Your task to perform on an android device: Search for a new blush on Sephora Image 0: 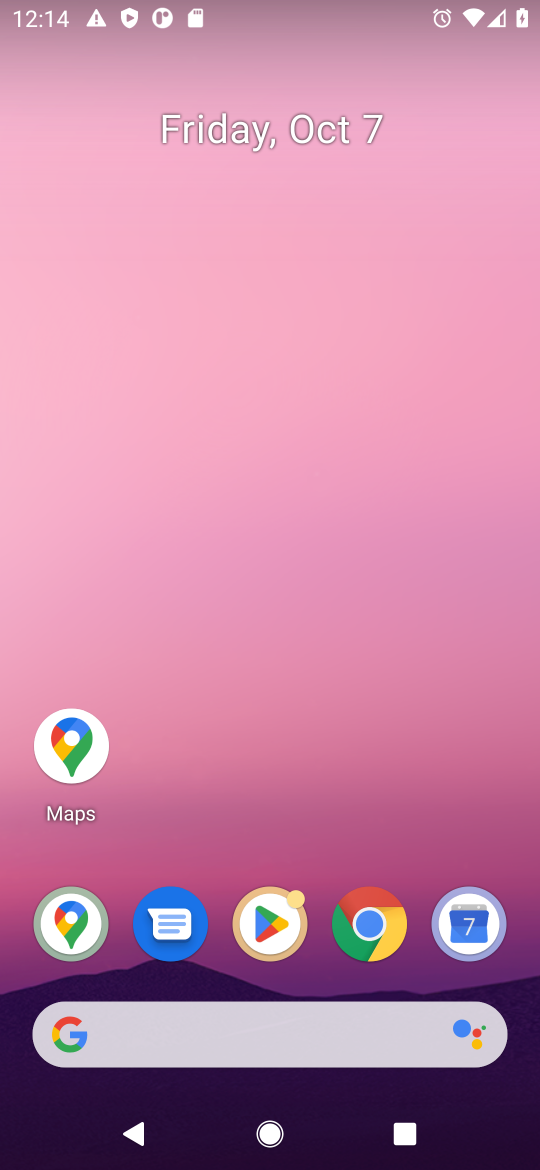
Step 0: click (373, 924)
Your task to perform on an android device: Search for a new blush on Sephora Image 1: 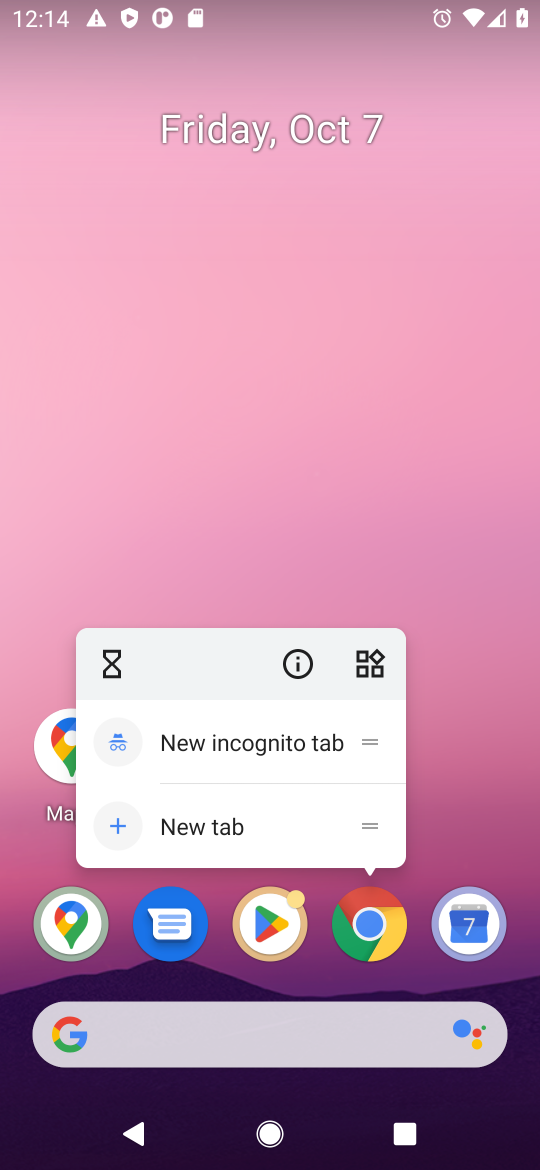
Step 1: click (363, 934)
Your task to perform on an android device: Search for a new blush on Sephora Image 2: 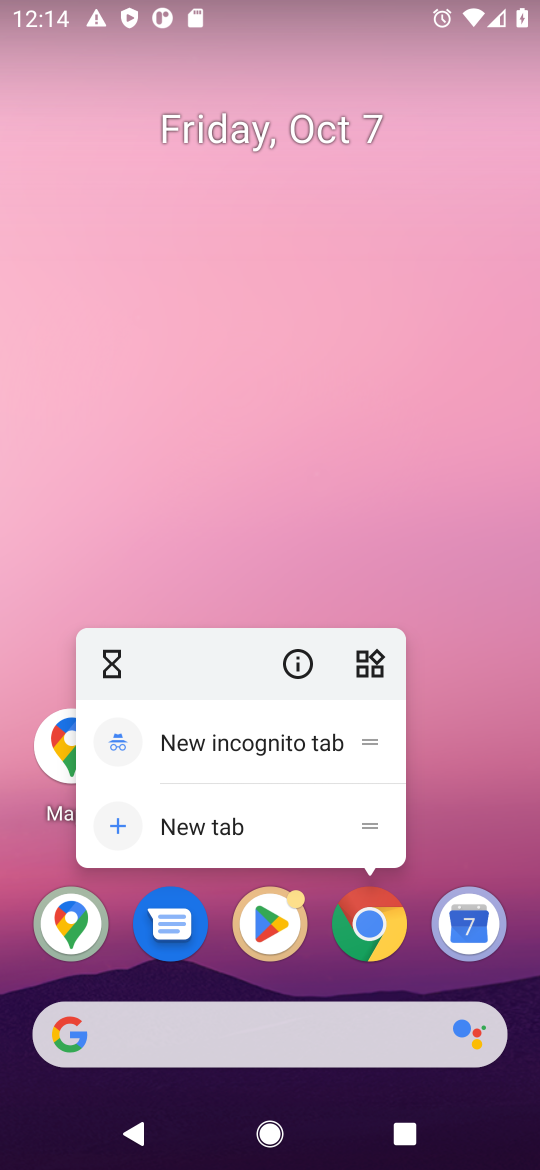
Step 2: click (363, 937)
Your task to perform on an android device: Search for a new blush on Sephora Image 3: 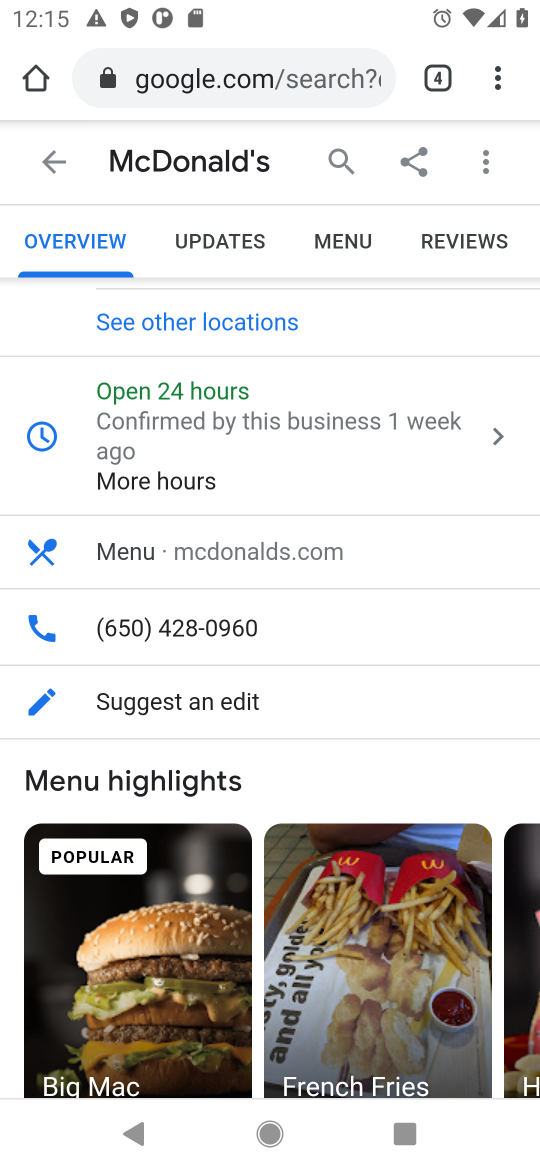
Step 3: click (298, 70)
Your task to perform on an android device: Search for a new blush on Sephora Image 4: 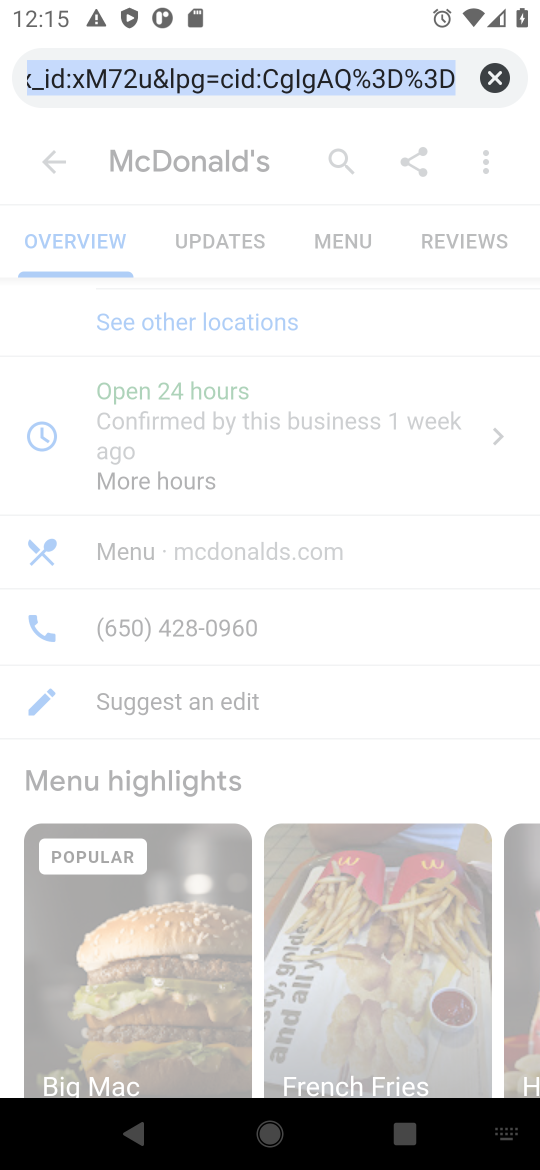
Step 4: click (491, 84)
Your task to perform on an android device: Search for a new blush on Sephora Image 5: 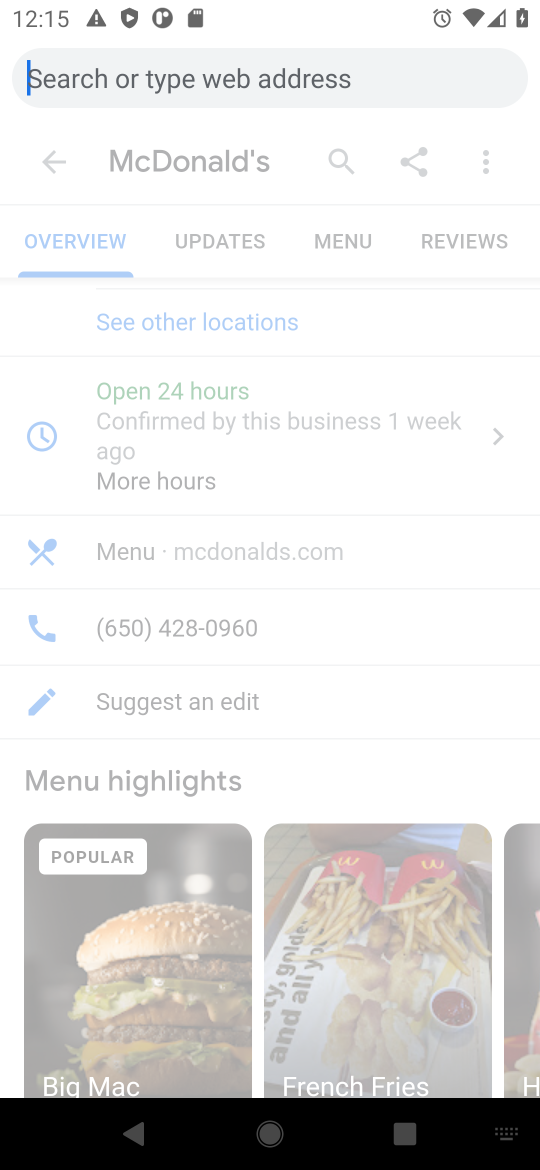
Step 5: type "new blush on Sephora"
Your task to perform on an android device: Search for a new blush on Sephora Image 6: 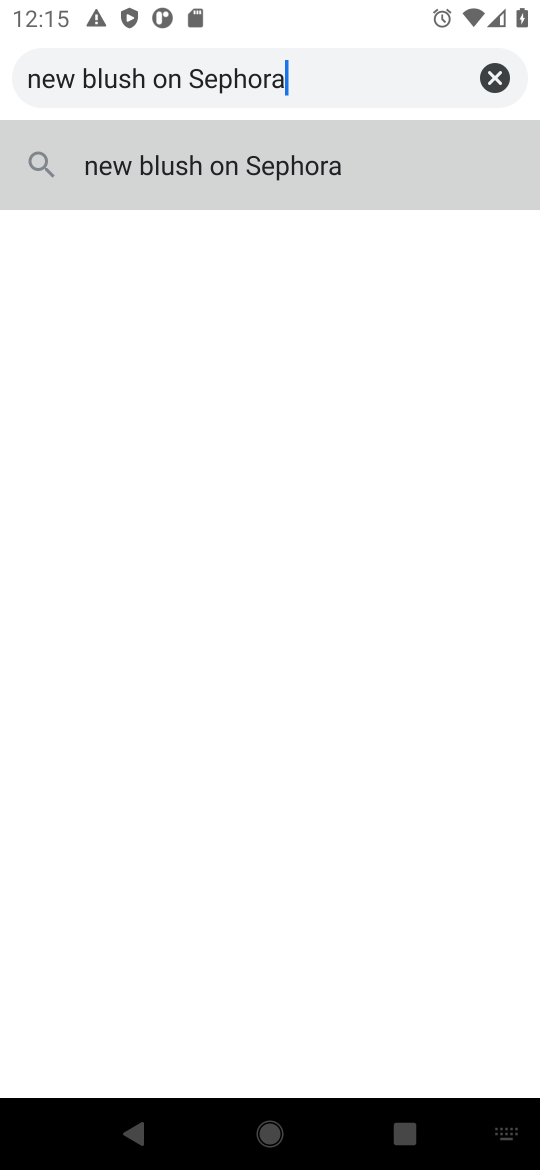
Step 6: click (187, 172)
Your task to perform on an android device: Search for a new blush on Sephora Image 7: 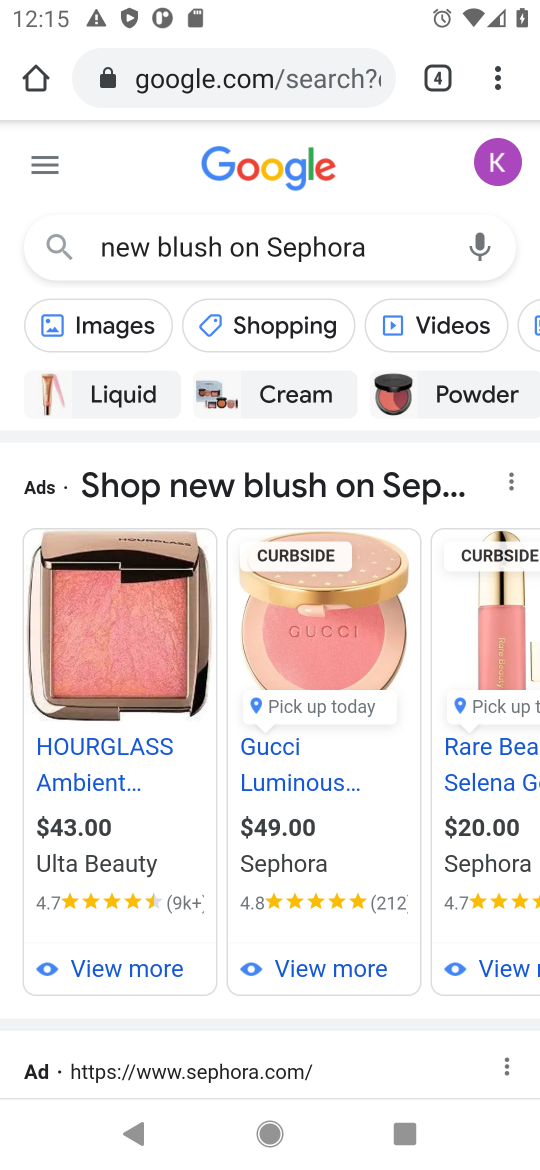
Step 7: drag from (230, 846) to (455, 407)
Your task to perform on an android device: Search for a new blush on Sephora Image 8: 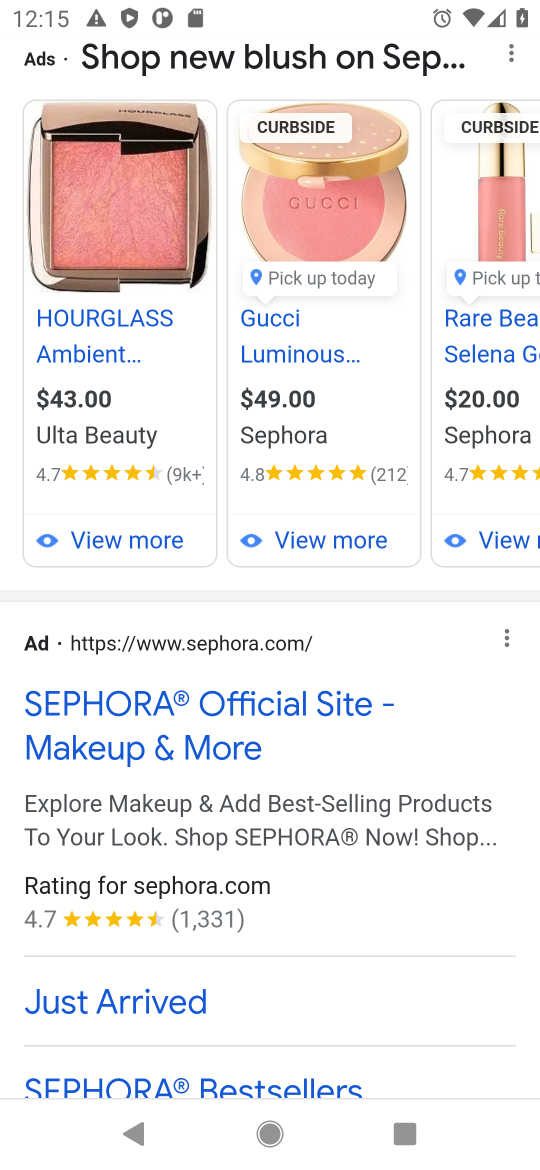
Step 8: click (181, 704)
Your task to perform on an android device: Search for a new blush on Sephora Image 9: 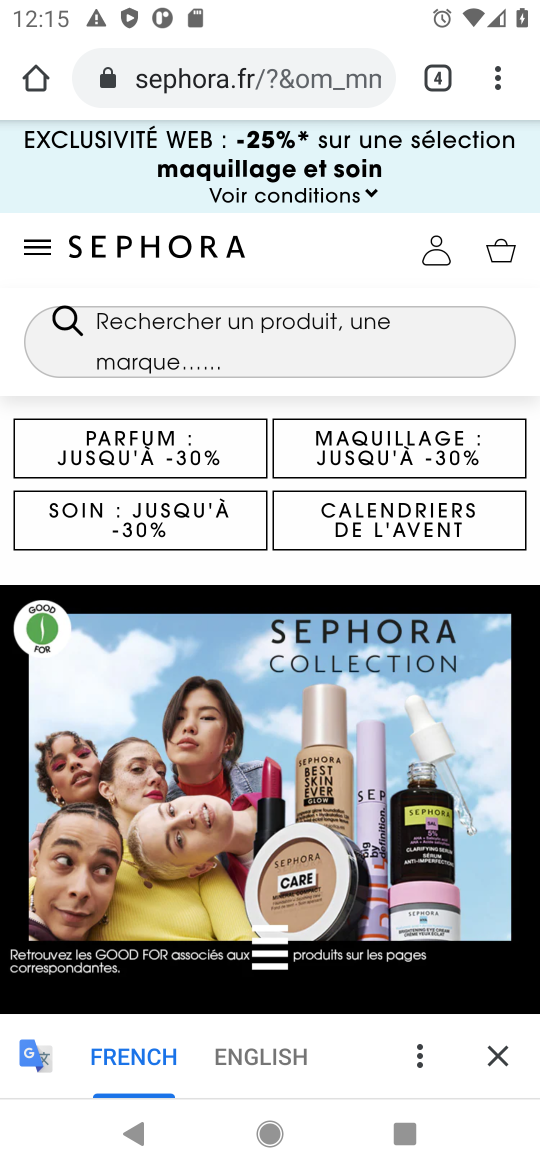
Step 9: drag from (115, 970) to (506, 371)
Your task to perform on an android device: Search for a new blush on Sephora Image 10: 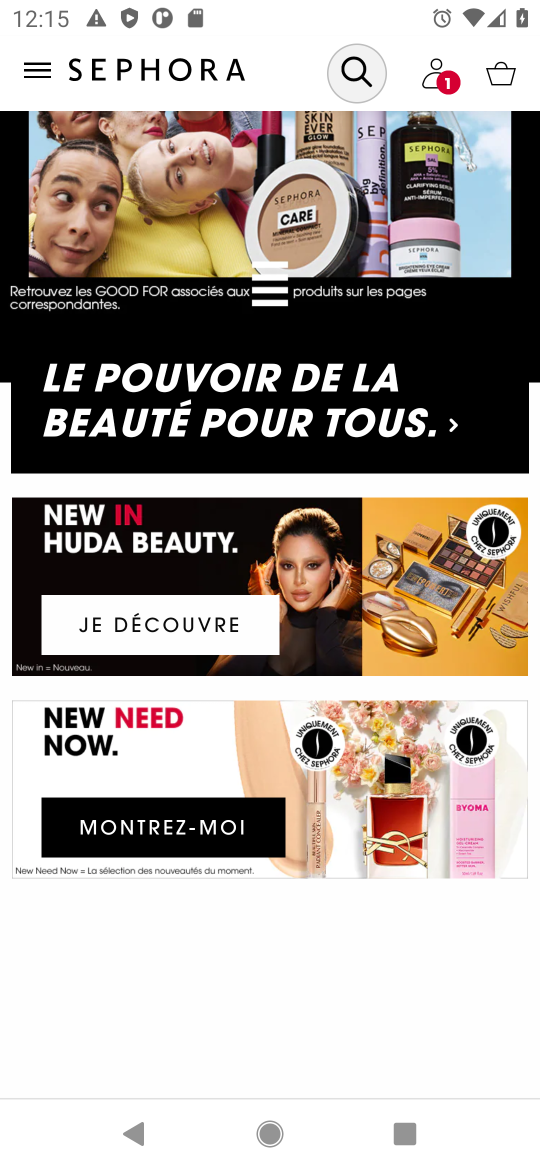
Step 10: drag from (149, 912) to (415, 316)
Your task to perform on an android device: Search for a new blush on Sephora Image 11: 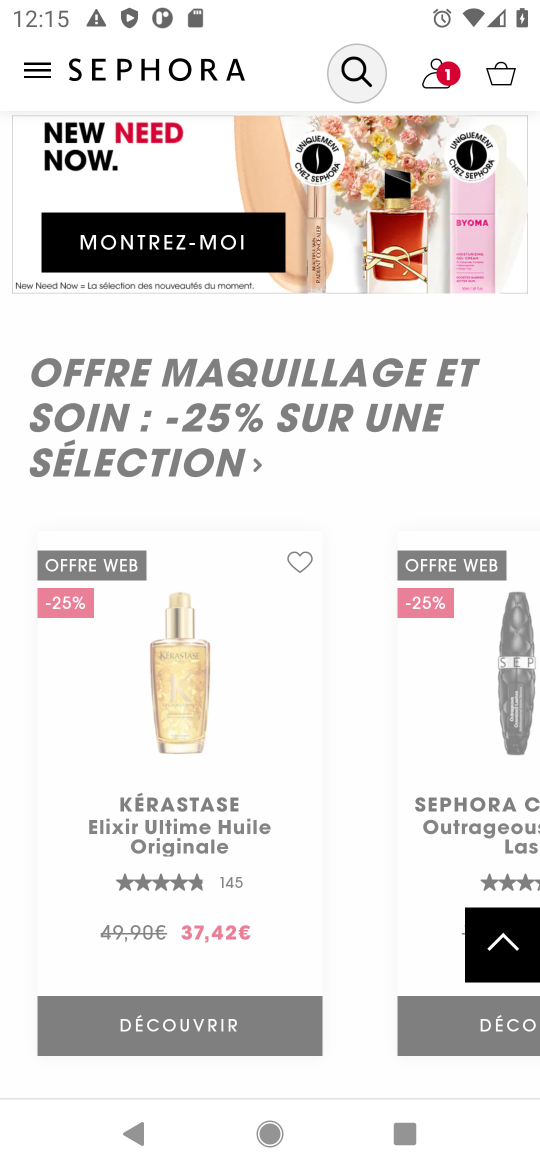
Step 11: drag from (236, 833) to (243, 988)
Your task to perform on an android device: Search for a new blush on Sephora Image 12: 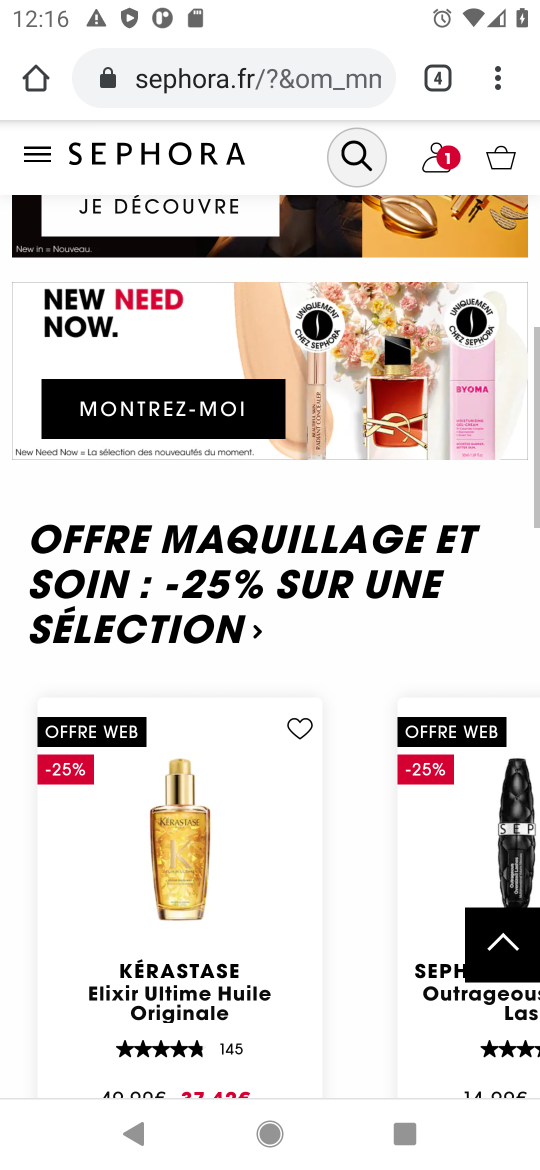
Step 12: drag from (377, 468) to (350, 704)
Your task to perform on an android device: Search for a new blush on Sephora Image 13: 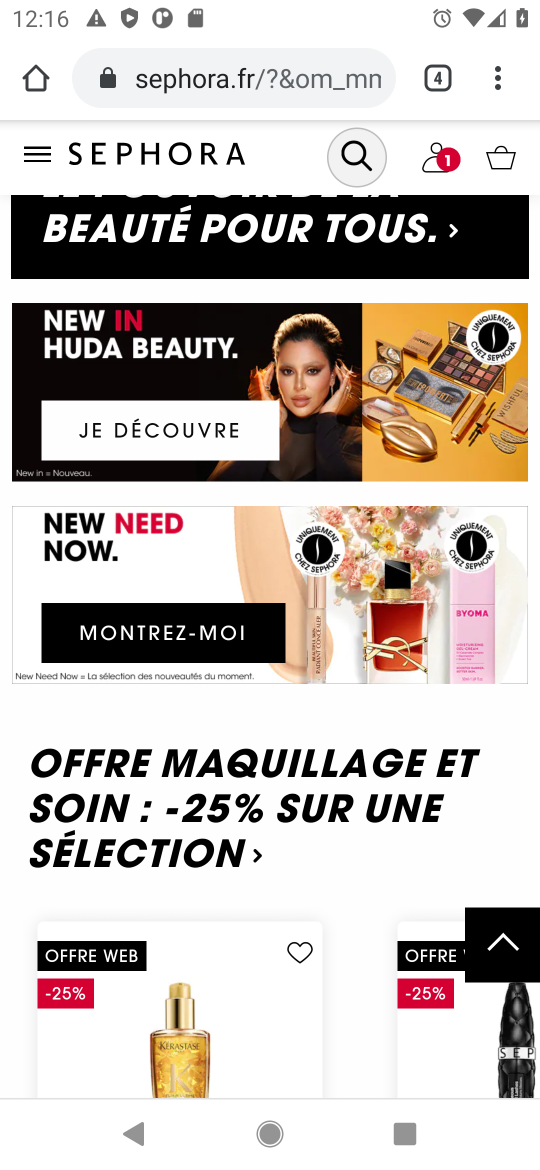
Step 13: click (353, 156)
Your task to perform on an android device: Search for a new blush on Sephora Image 14: 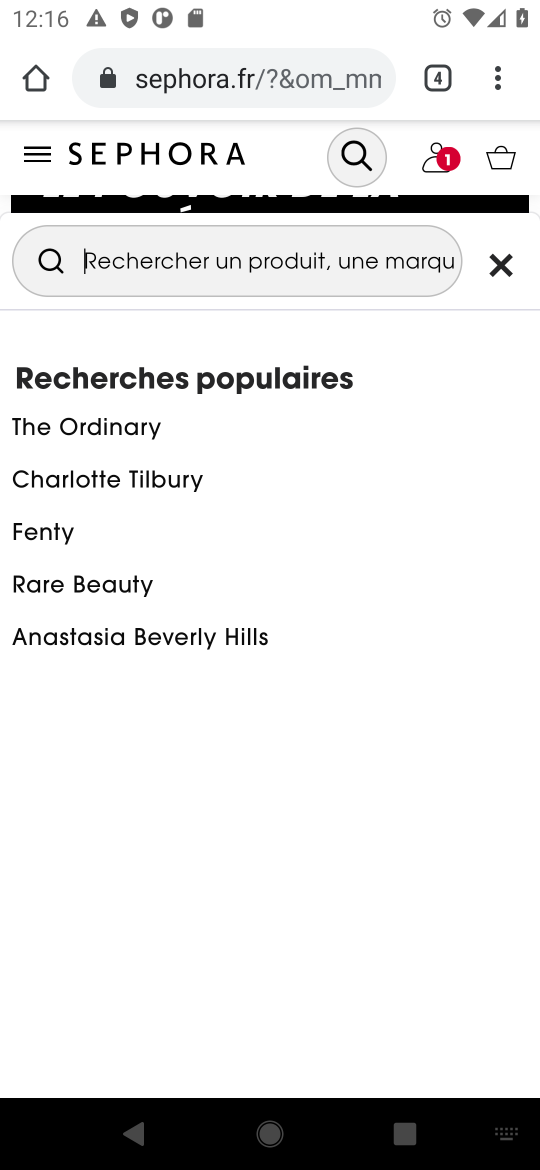
Step 14: type "new blush"
Your task to perform on an android device: Search for a new blush on Sephora Image 15: 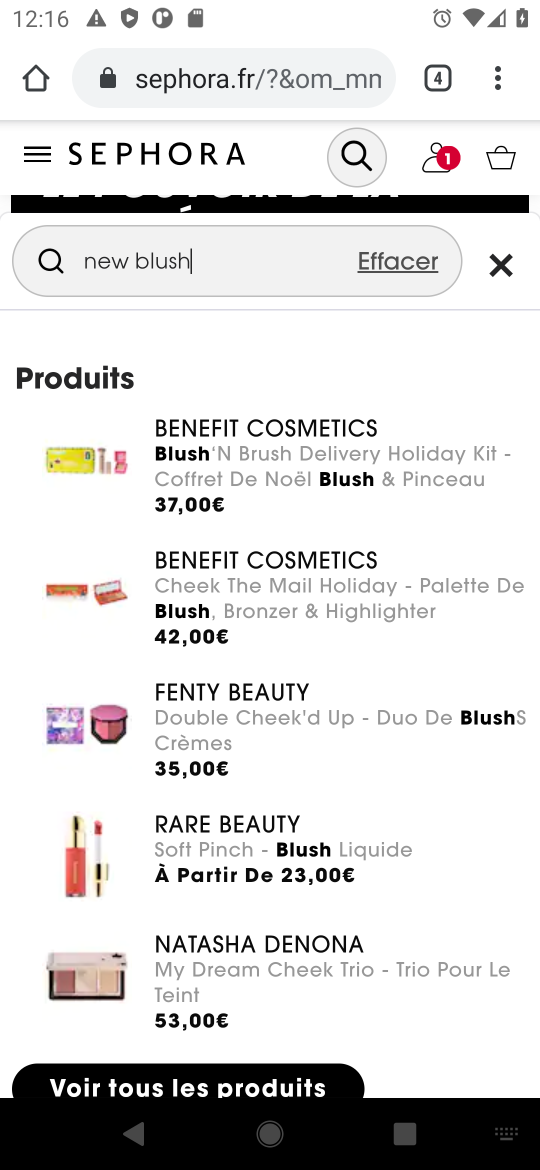
Step 15: task complete